Your task to perform on an android device: Go to Google maps Image 0: 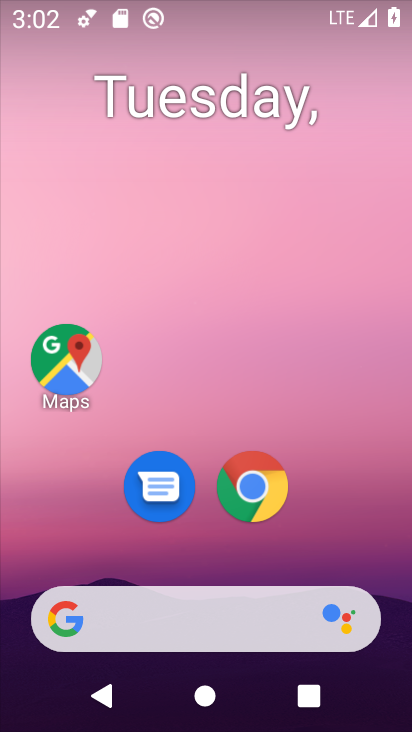
Step 0: press home button
Your task to perform on an android device: Go to Google maps Image 1: 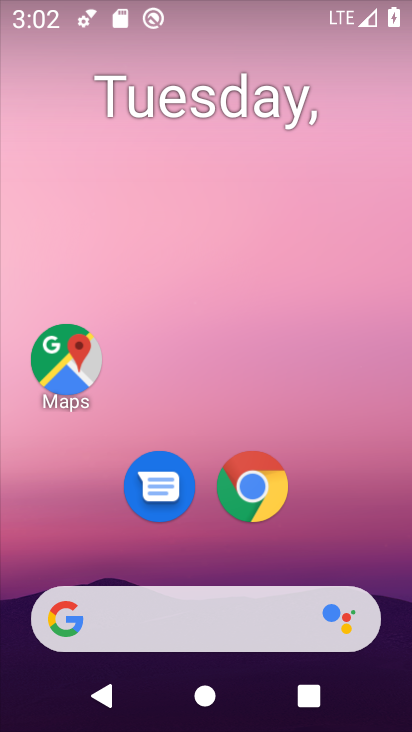
Step 1: press home button
Your task to perform on an android device: Go to Google maps Image 2: 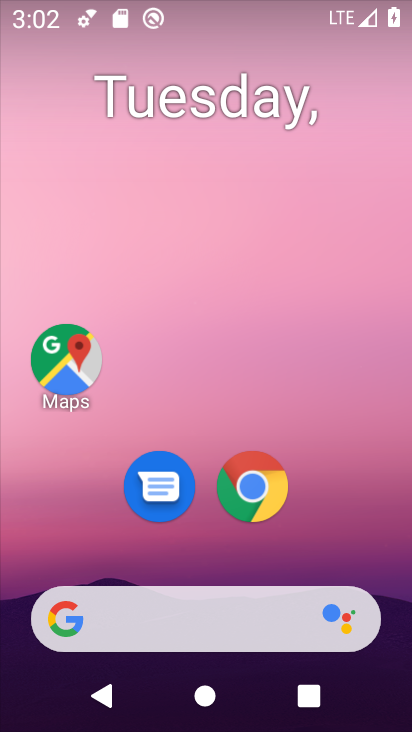
Step 2: drag from (216, 562) to (258, 60)
Your task to perform on an android device: Go to Google maps Image 3: 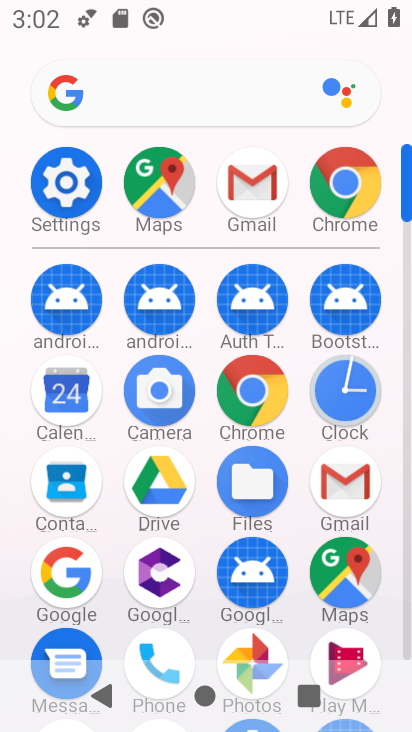
Step 3: click (159, 175)
Your task to perform on an android device: Go to Google maps Image 4: 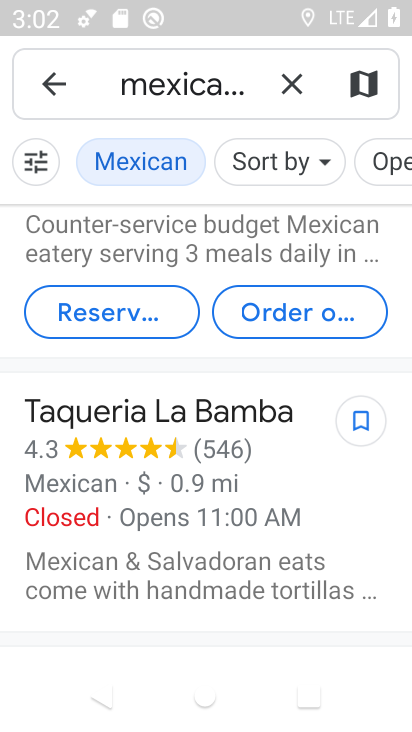
Step 4: task complete